Your task to perform on an android device: turn off javascript in the chrome app Image 0: 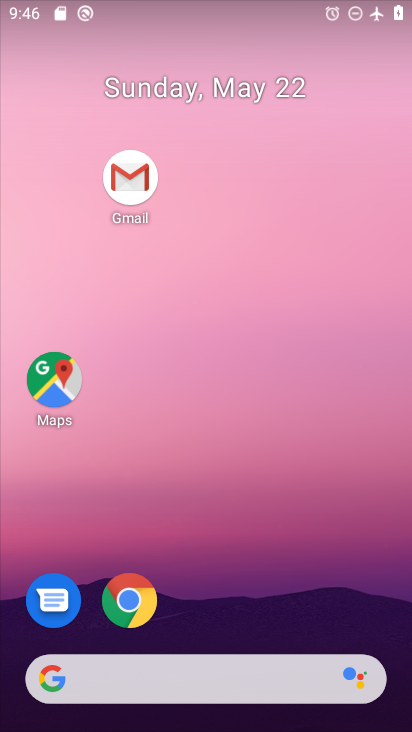
Step 0: drag from (252, 669) to (259, 50)
Your task to perform on an android device: turn off javascript in the chrome app Image 1: 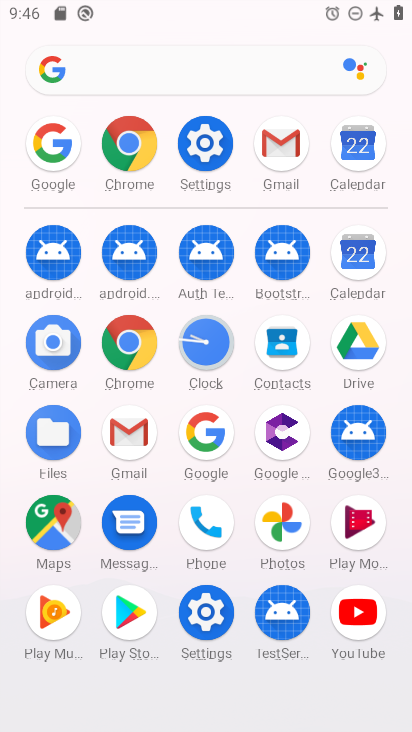
Step 1: click (121, 162)
Your task to perform on an android device: turn off javascript in the chrome app Image 2: 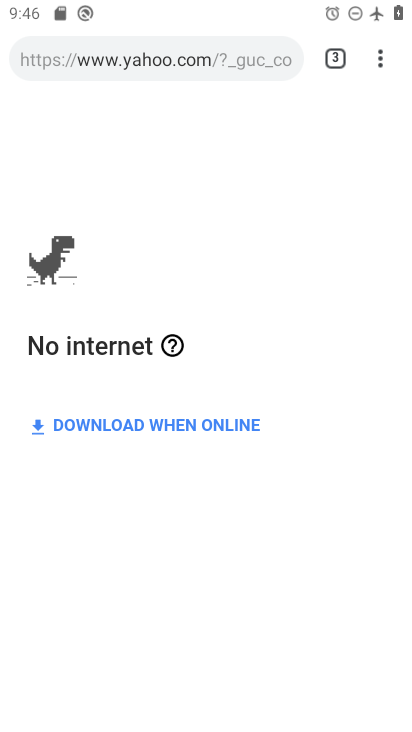
Step 2: click (379, 69)
Your task to perform on an android device: turn off javascript in the chrome app Image 3: 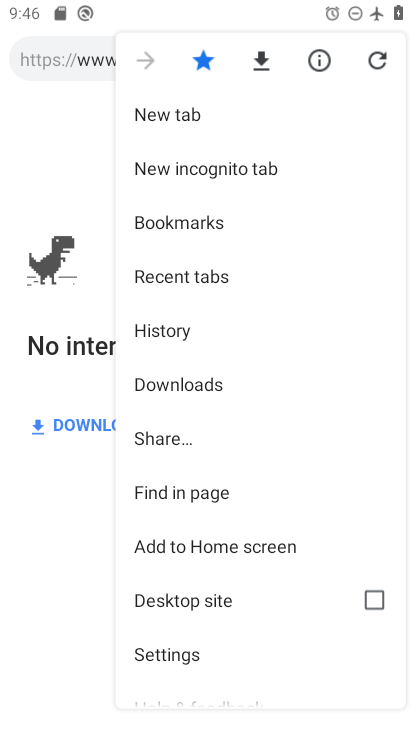
Step 3: click (210, 649)
Your task to perform on an android device: turn off javascript in the chrome app Image 4: 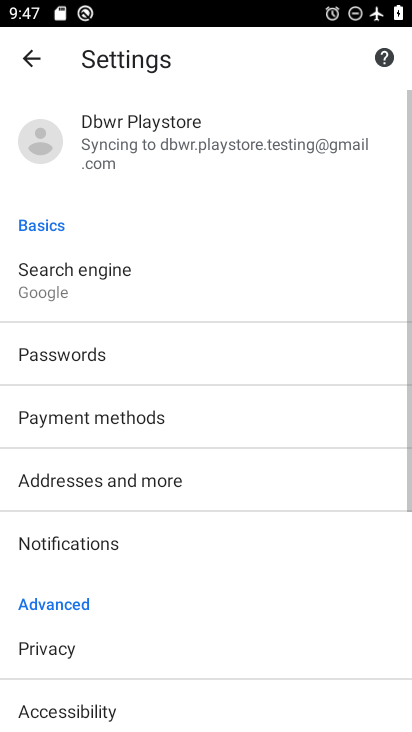
Step 4: drag from (212, 577) to (240, 170)
Your task to perform on an android device: turn off javascript in the chrome app Image 5: 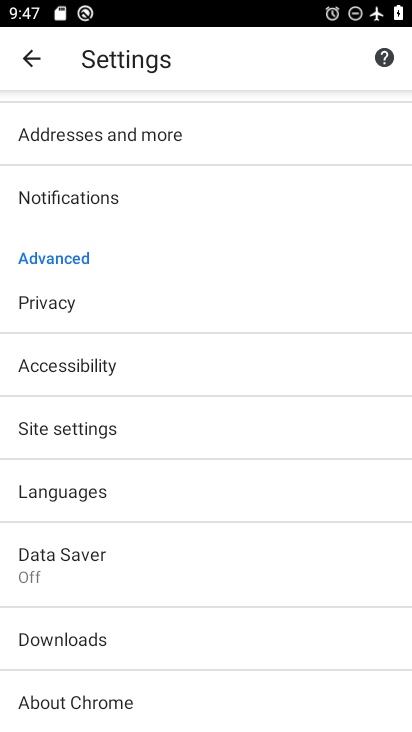
Step 5: click (99, 432)
Your task to perform on an android device: turn off javascript in the chrome app Image 6: 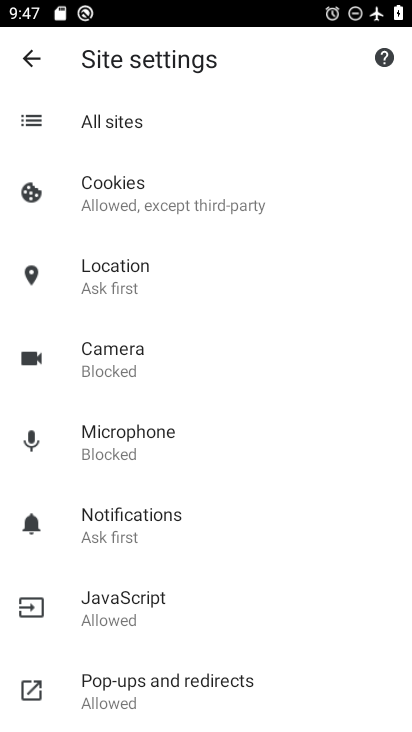
Step 6: click (163, 617)
Your task to perform on an android device: turn off javascript in the chrome app Image 7: 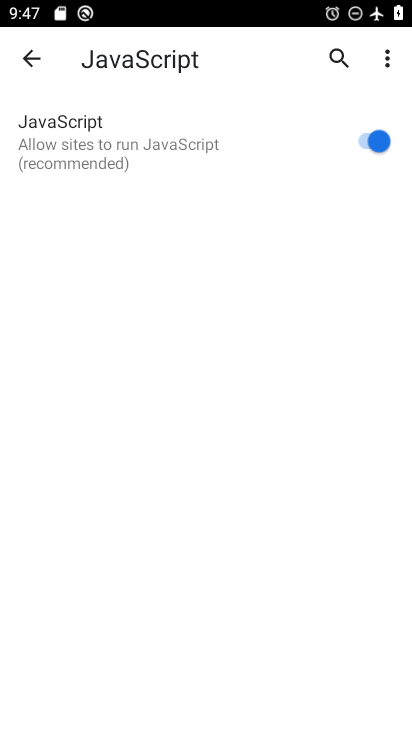
Step 7: click (361, 152)
Your task to perform on an android device: turn off javascript in the chrome app Image 8: 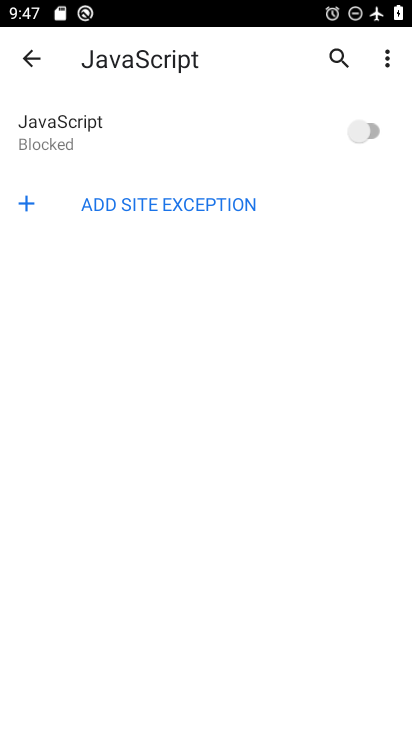
Step 8: task complete